Your task to perform on an android device: Set the phone to "Do not disturb". Image 0: 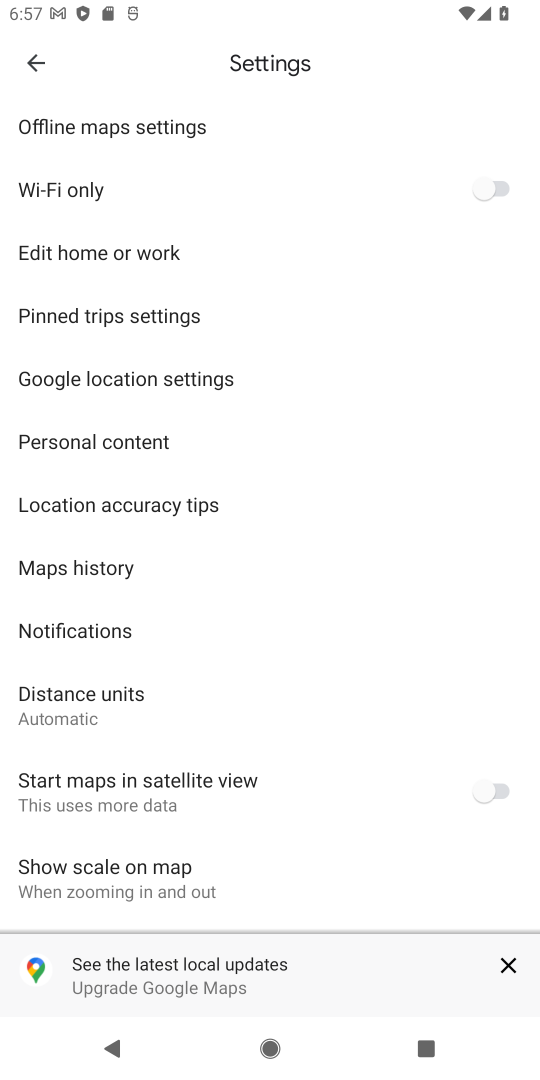
Step 0: click (47, 46)
Your task to perform on an android device: Set the phone to "Do not disturb". Image 1: 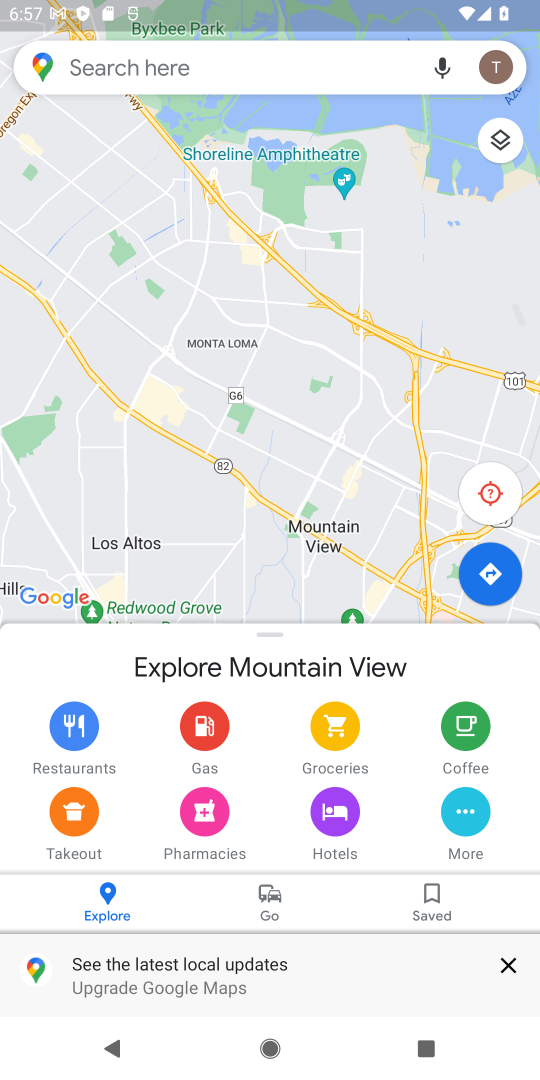
Step 1: press home button
Your task to perform on an android device: Set the phone to "Do not disturb". Image 2: 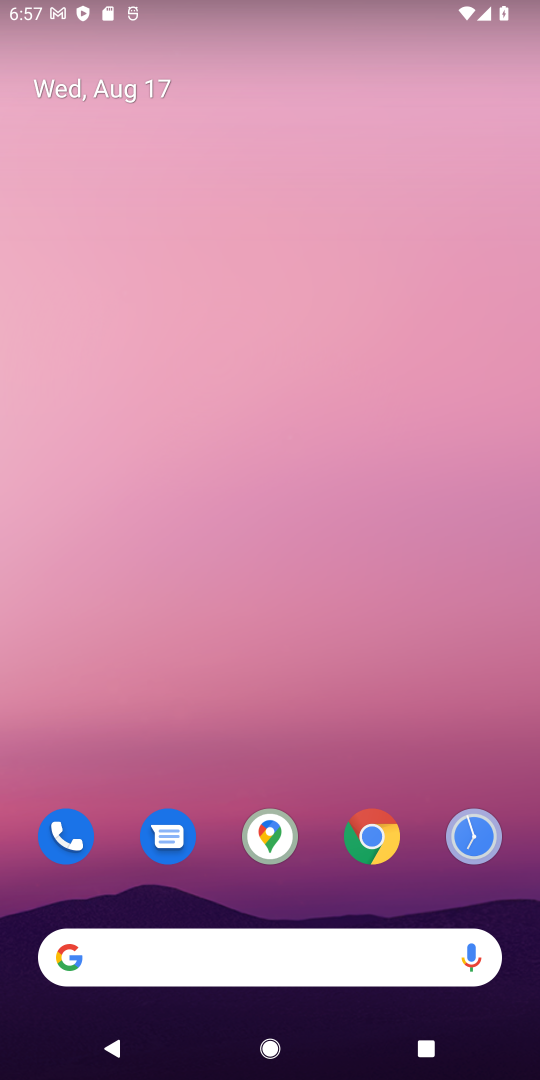
Step 2: drag from (297, 602) to (292, 196)
Your task to perform on an android device: Set the phone to "Do not disturb". Image 3: 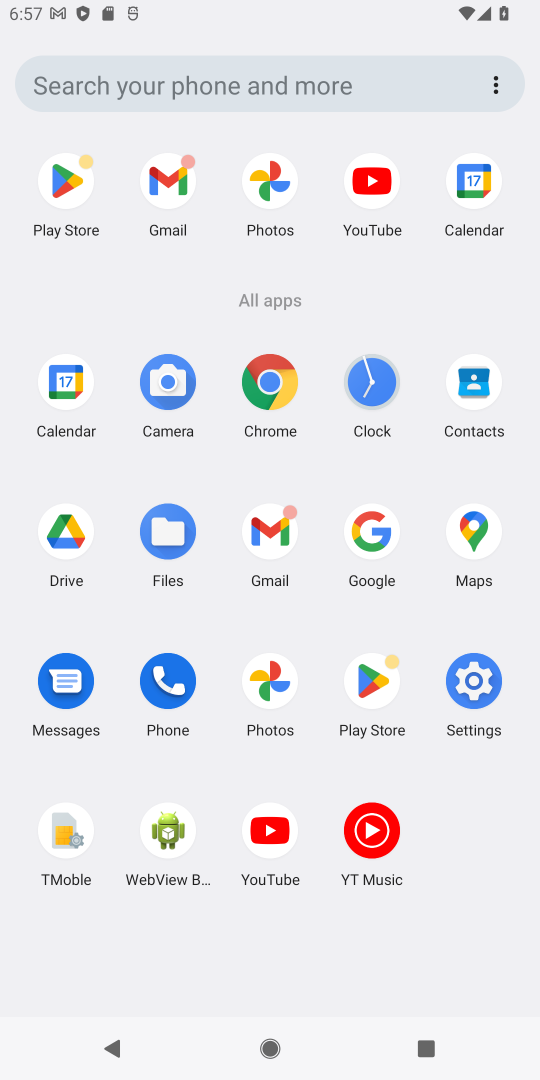
Step 3: click (480, 673)
Your task to perform on an android device: Set the phone to "Do not disturb". Image 4: 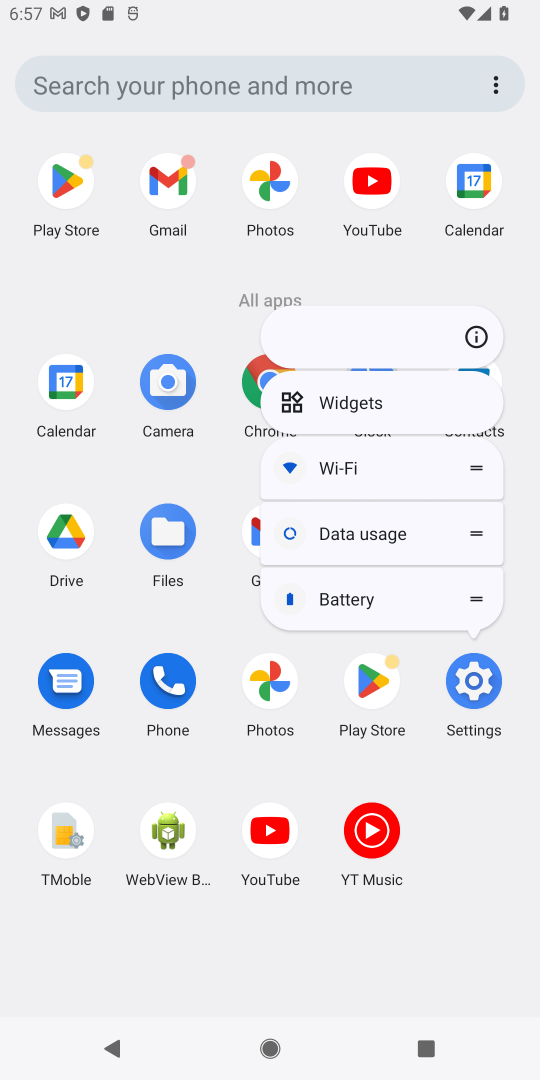
Step 4: click (474, 684)
Your task to perform on an android device: Set the phone to "Do not disturb". Image 5: 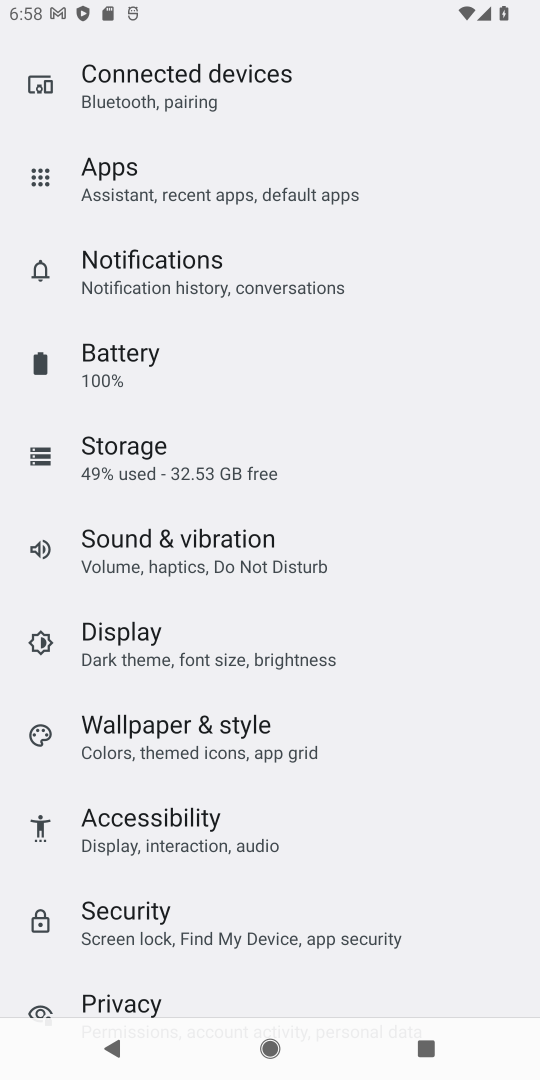
Step 5: drag from (241, 187) to (228, 874)
Your task to perform on an android device: Set the phone to "Do not disturb". Image 6: 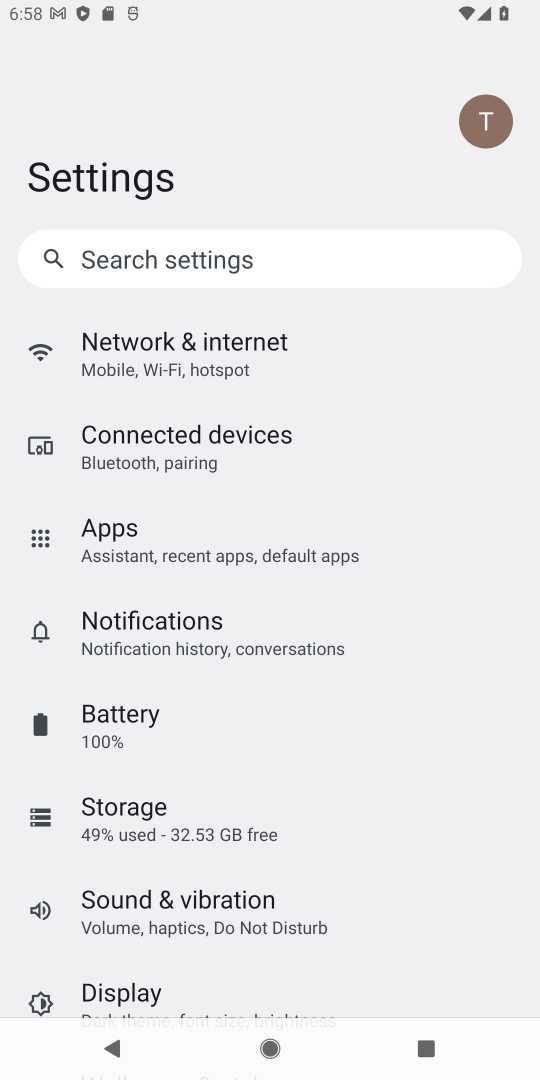
Step 6: click (233, 363)
Your task to perform on an android device: Set the phone to "Do not disturb". Image 7: 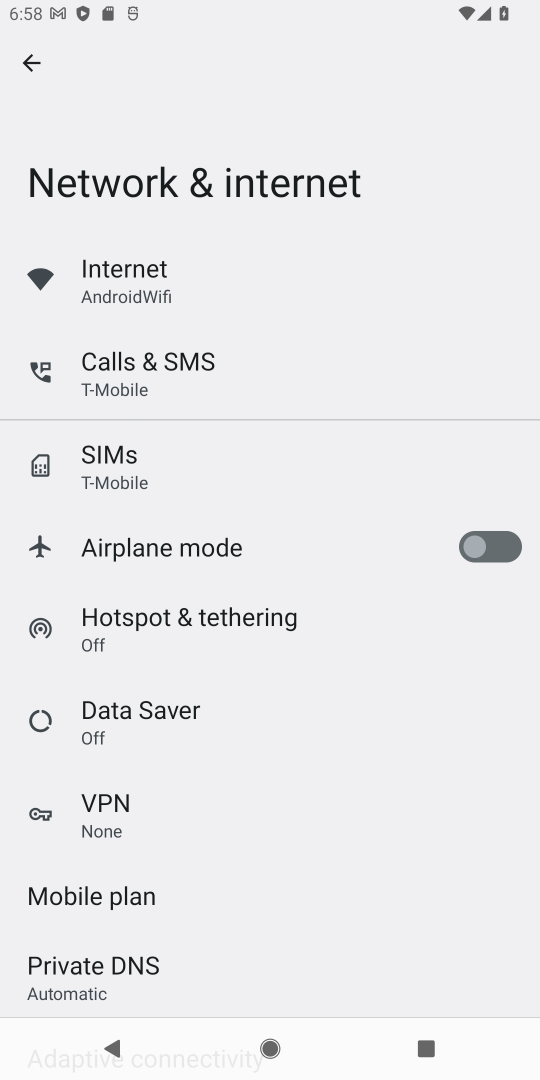
Step 7: drag from (195, 767) to (241, 136)
Your task to perform on an android device: Set the phone to "Do not disturb". Image 8: 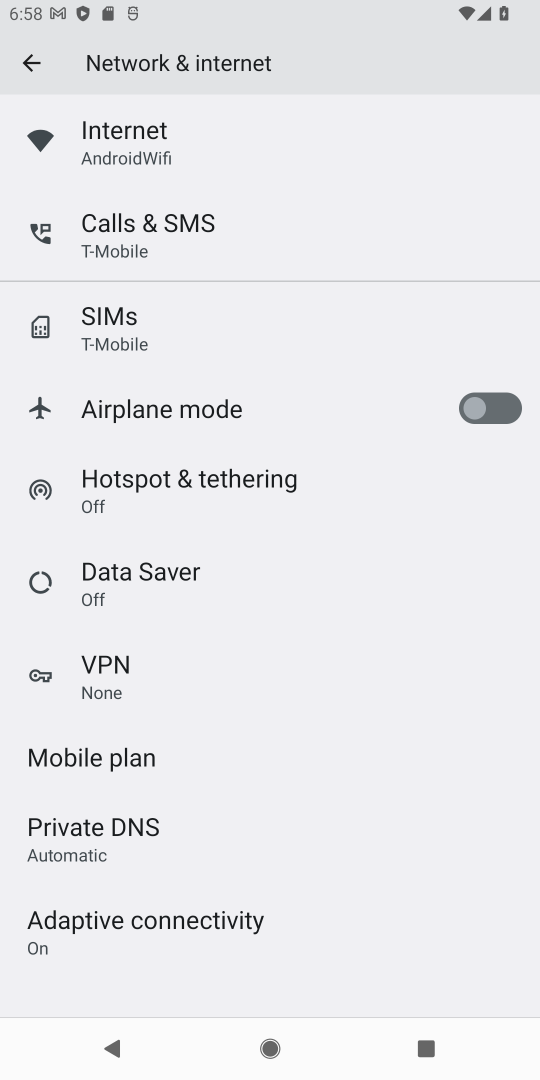
Step 8: drag from (242, 226) to (245, 430)
Your task to perform on an android device: Set the phone to "Do not disturb". Image 9: 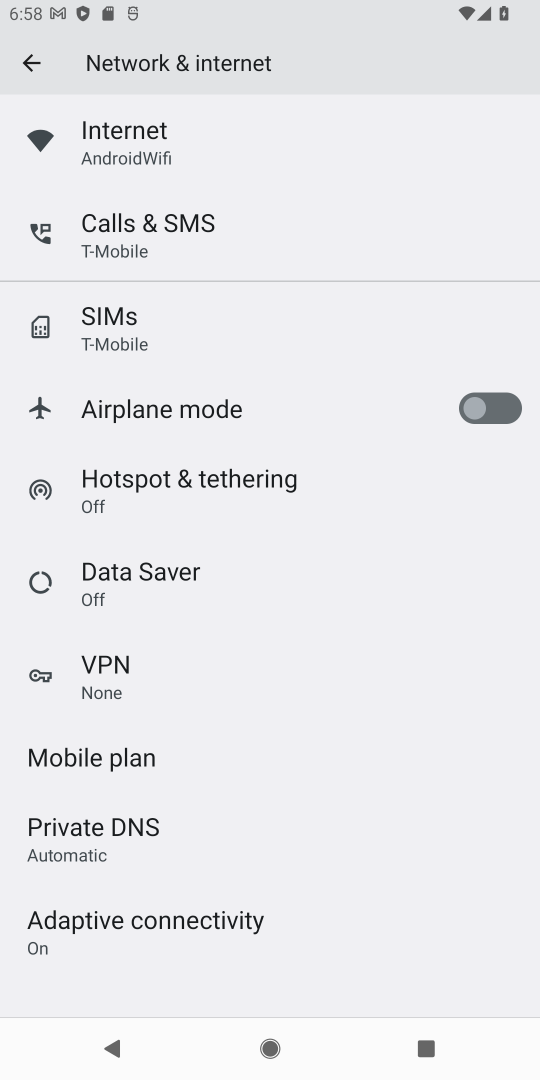
Step 9: drag from (205, 3) to (213, 380)
Your task to perform on an android device: Set the phone to "Do not disturb". Image 10: 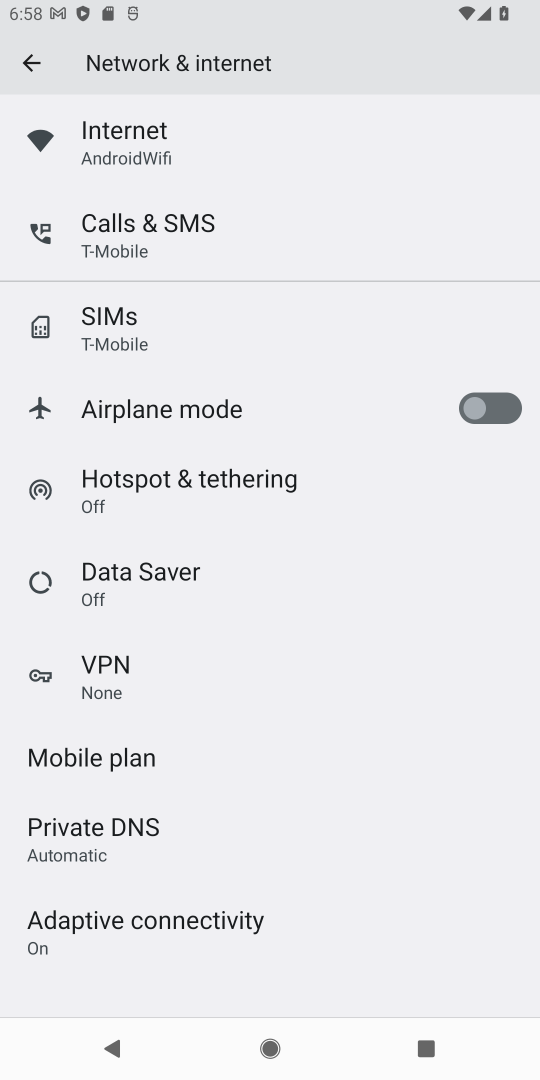
Step 10: drag from (231, 0) to (194, 341)
Your task to perform on an android device: Set the phone to "Do not disturb". Image 11: 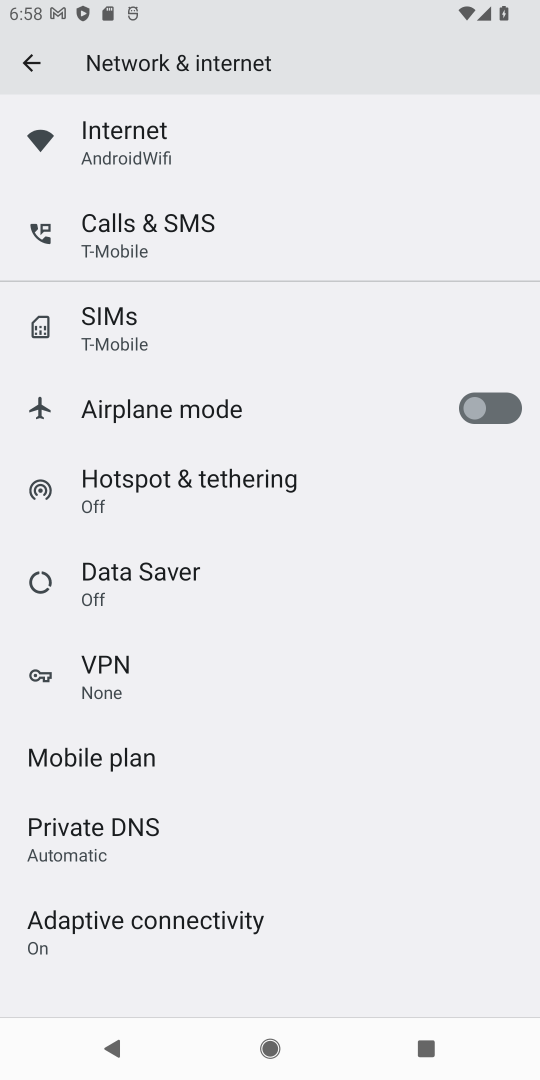
Step 11: press home button
Your task to perform on an android device: Set the phone to "Do not disturb". Image 12: 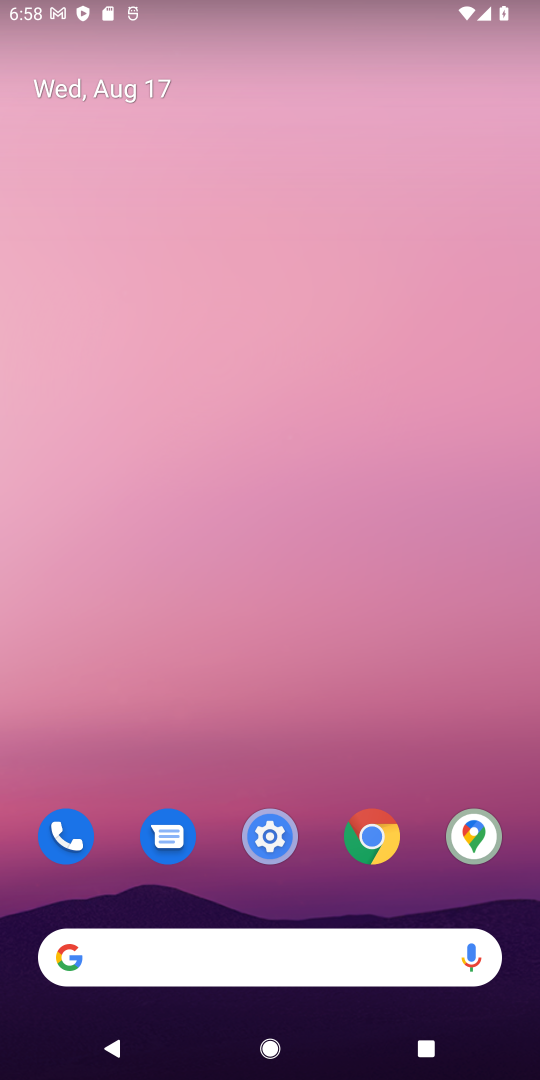
Step 12: drag from (255, 5) to (162, 827)
Your task to perform on an android device: Set the phone to "Do not disturb". Image 13: 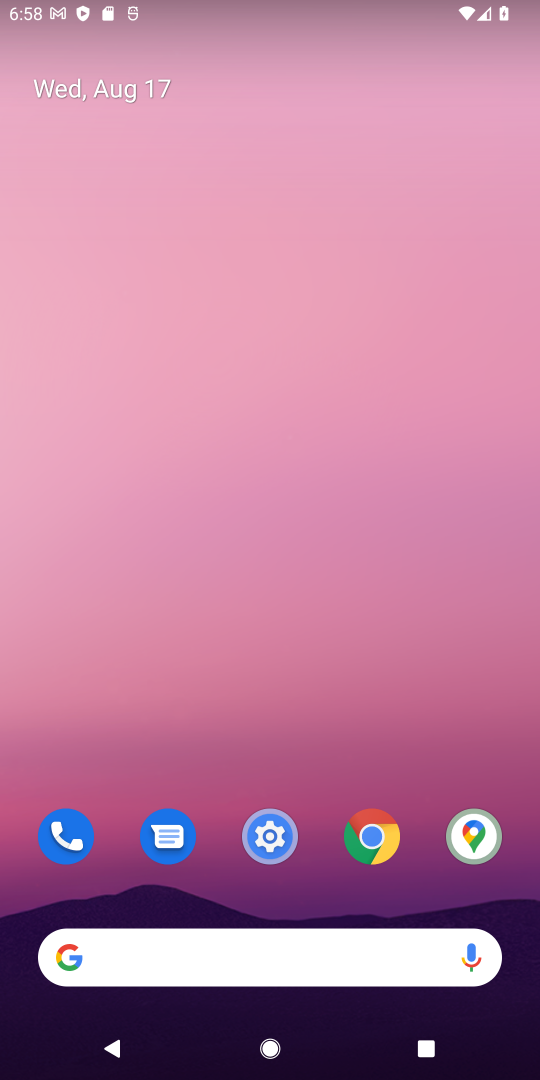
Step 13: click (182, 1)
Your task to perform on an android device: Set the phone to "Do not disturb". Image 14: 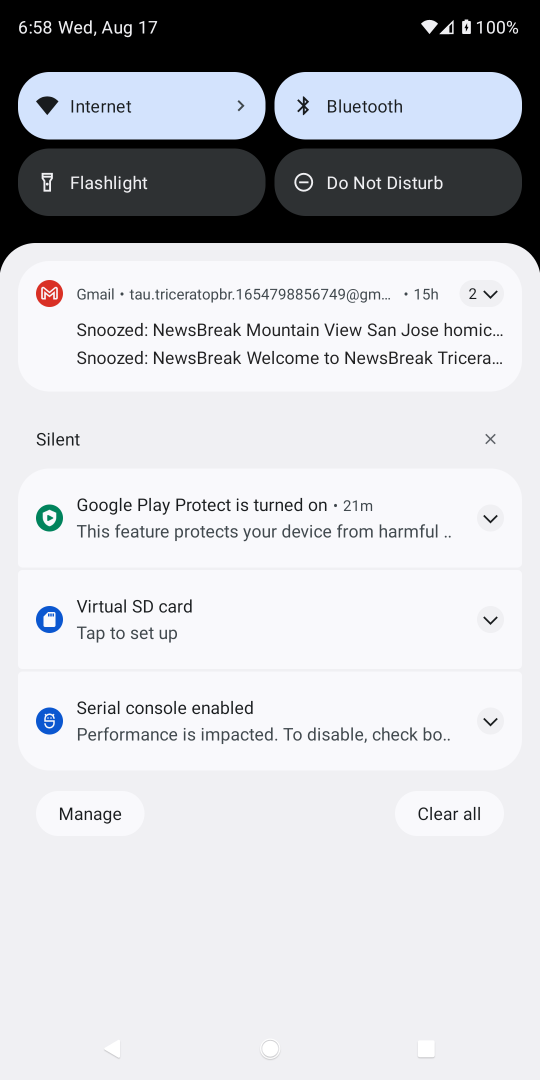
Step 14: click (336, 184)
Your task to perform on an android device: Set the phone to "Do not disturb". Image 15: 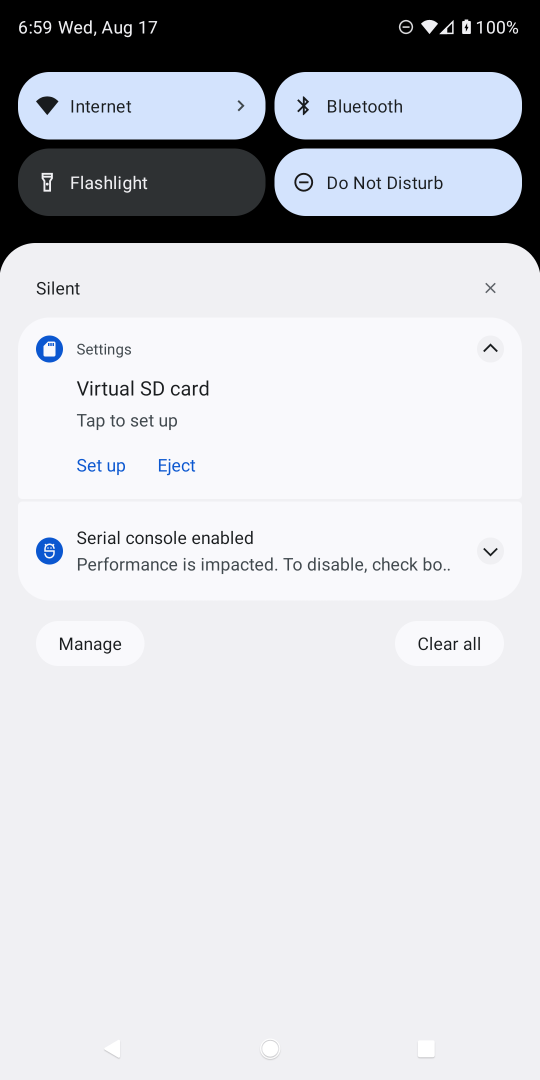
Step 15: task complete